Your task to perform on an android device: add a label to a message in the gmail app Image 0: 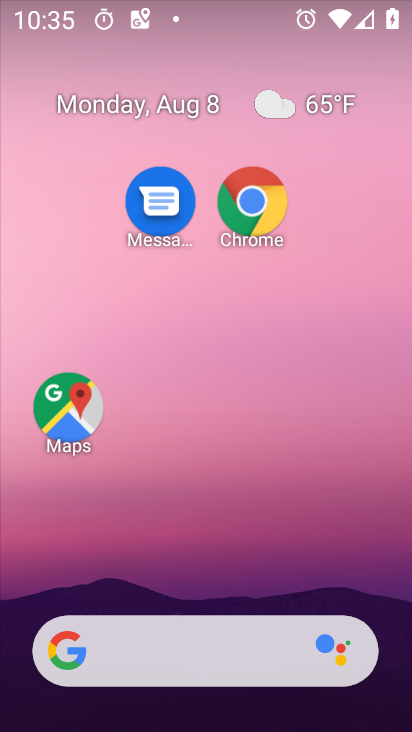
Step 0: press home button
Your task to perform on an android device: add a label to a message in the gmail app Image 1: 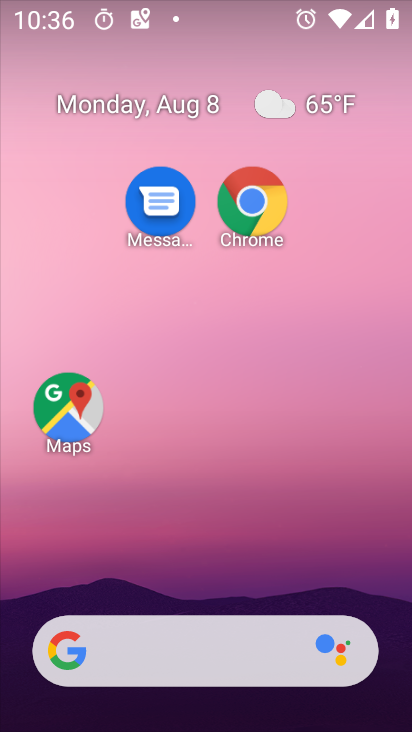
Step 1: drag from (229, 586) to (233, 103)
Your task to perform on an android device: add a label to a message in the gmail app Image 2: 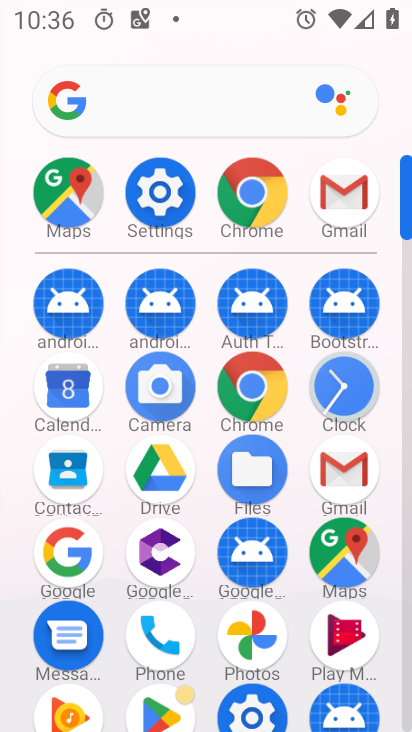
Step 2: click (342, 187)
Your task to perform on an android device: add a label to a message in the gmail app Image 3: 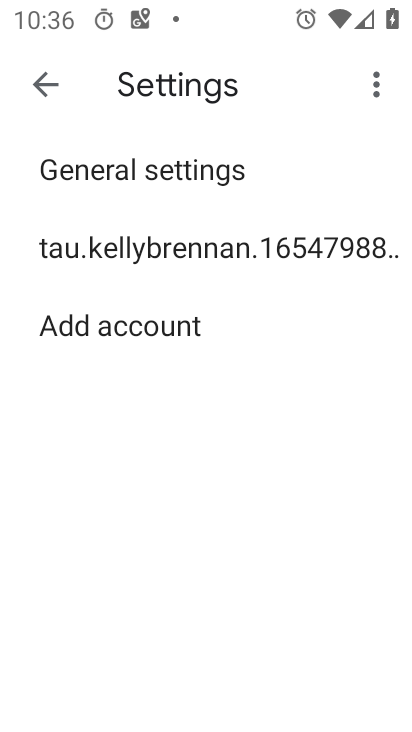
Step 3: click (48, 81)
Your task to perform on an android device: add a label to a message in the gmail app Image 4: 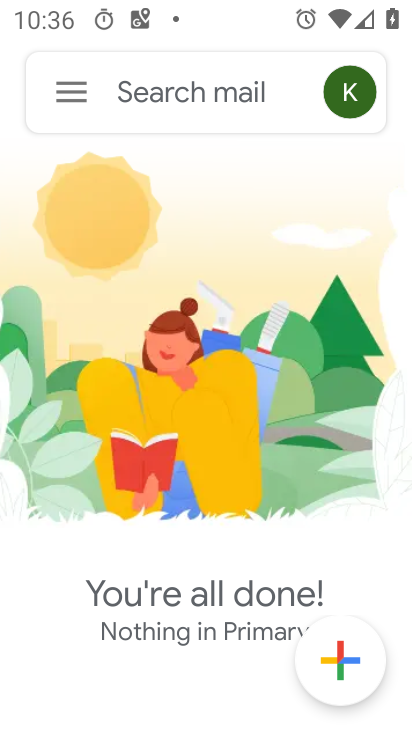
Step 4: task complete